Your task to perform on an android device: check android version Image 0: 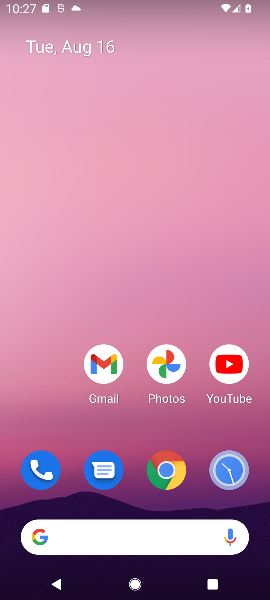
Step 0: drag from (74, 415) to (113, 19)
Your task to perform on an android device: check android version Image 1: 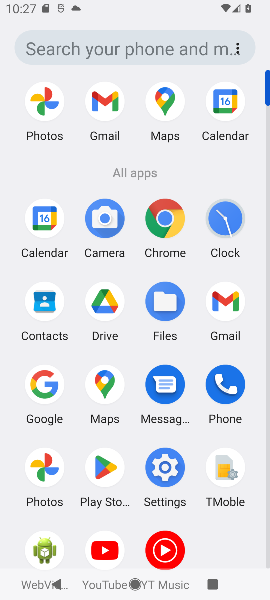
Step 1: click (165, 469)
Your task to perform on an android device: check android version Image 2: 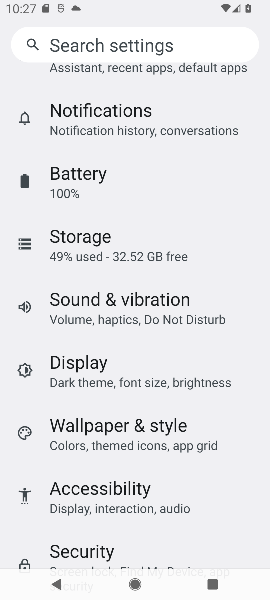
Step 2: drag from (165, 469) to (186, 42)
Your task to perform on an android device: check android version Image 3: 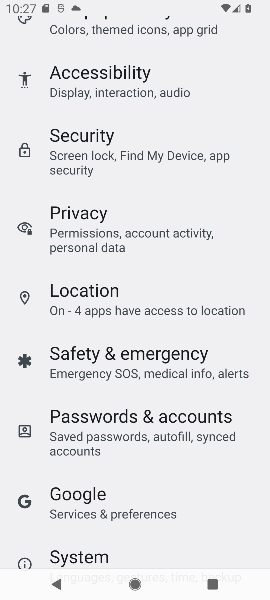
Step 3: drag from (146, 476) to (160, 64)
Your task to perform on an android device: check android version Image 4: 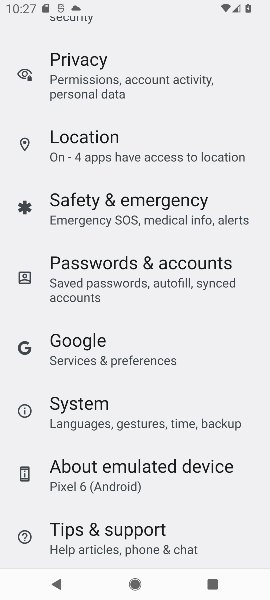
Step 4: click (137, 470)
Your task to perform on an android device: check android version Image 5: 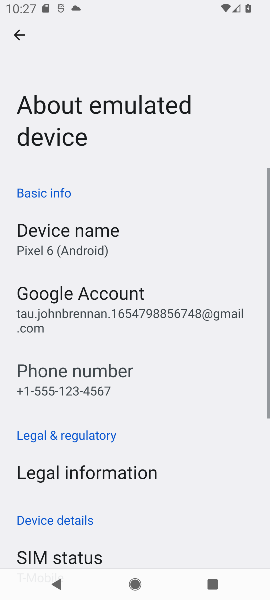
Step 5: task complete